Your task to perform on an android device: toggle location history Image 0: 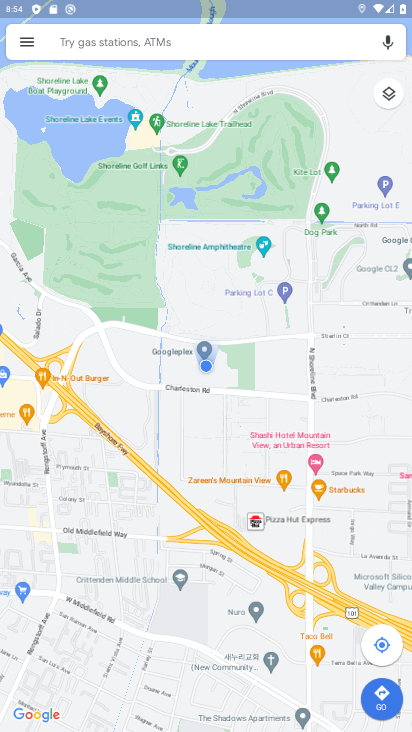
Step 0: press back button
Your task to perform on an android device: toggle location history Image 1: 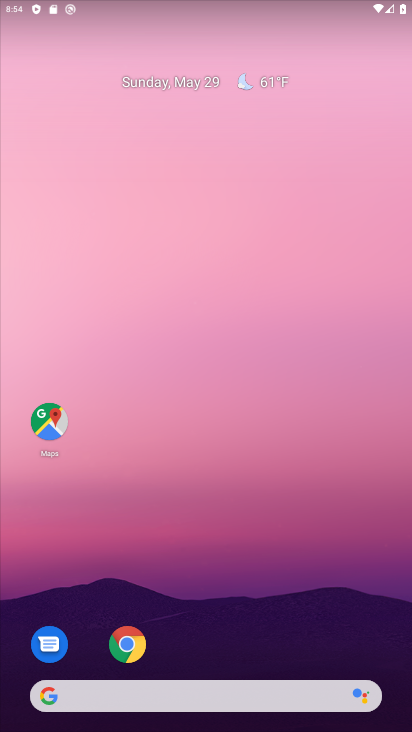
Step 1: drag from (210, 367) to (160, 10)
Your task to perform on an android device: toggle location history Image 2: 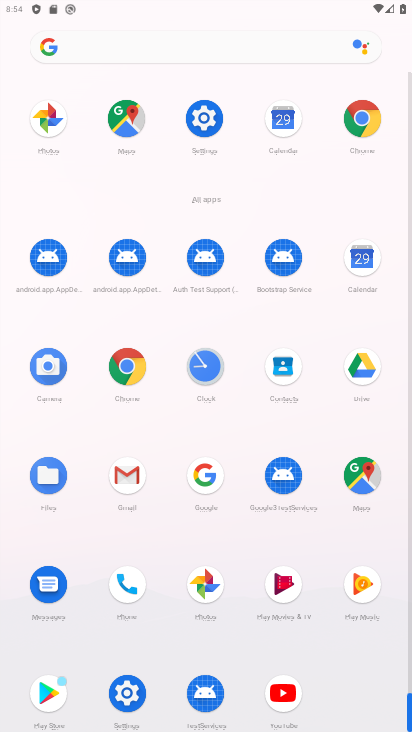
Step 2: drag from (11, 567) to (23, 212)
Your task to perform on an android device: toggle location history Image 3: 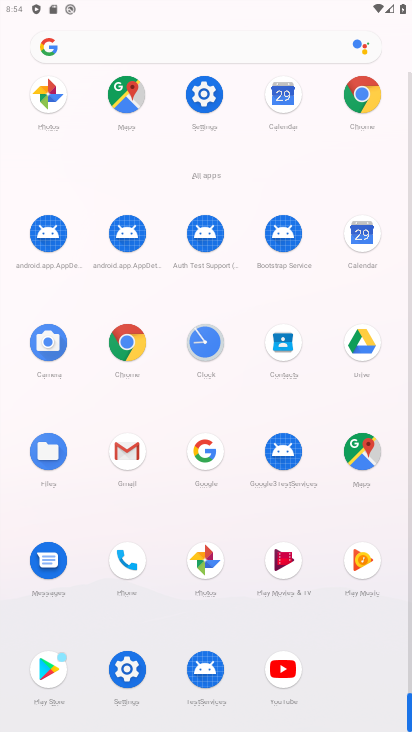
Step 3: click (125, 669)
Your task to perform on an android device: toggle location history Image 4: 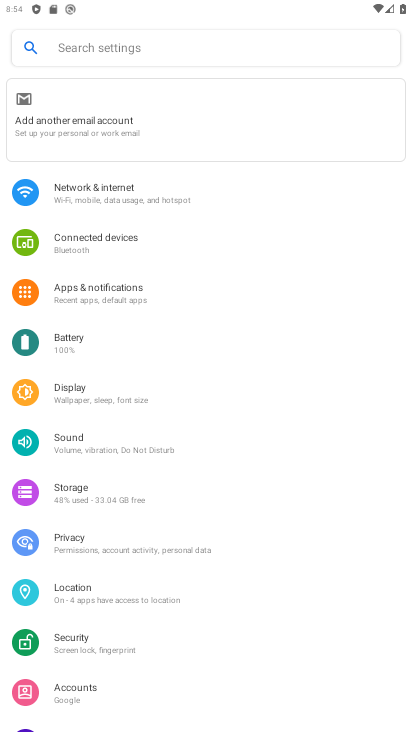
Step 4: drag from (159, 571) to (156, 113)
Your task to perform on an android device: toggle location history Image 5: 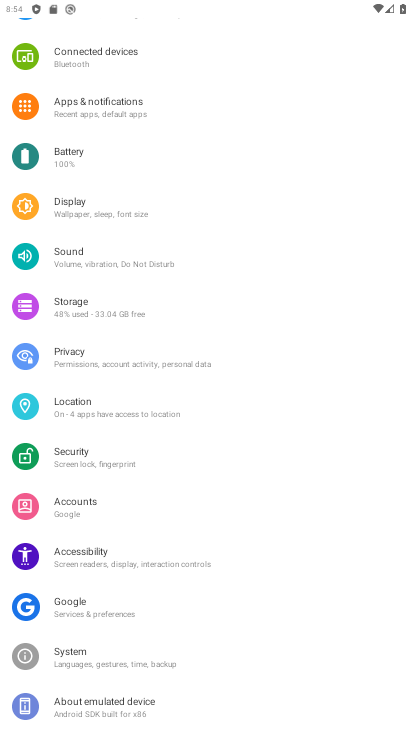
Step 5: drag from (197, 514) to (194, 168)
Your task to perform on an android device: toggle location history Image 6: 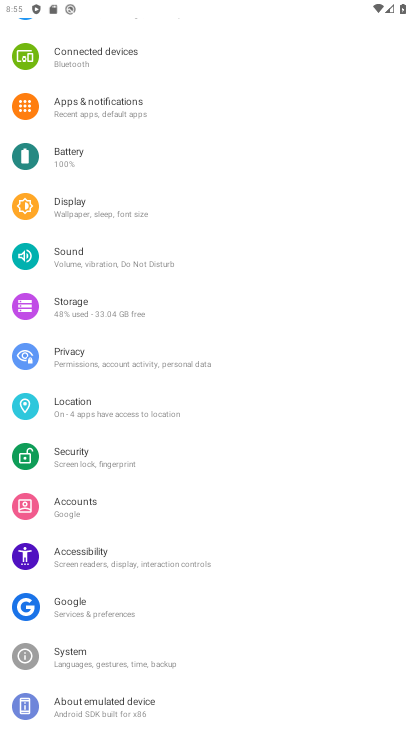
Step 6: click (137, 407)
Your task to perform on an android device: toggle location history Image 7: 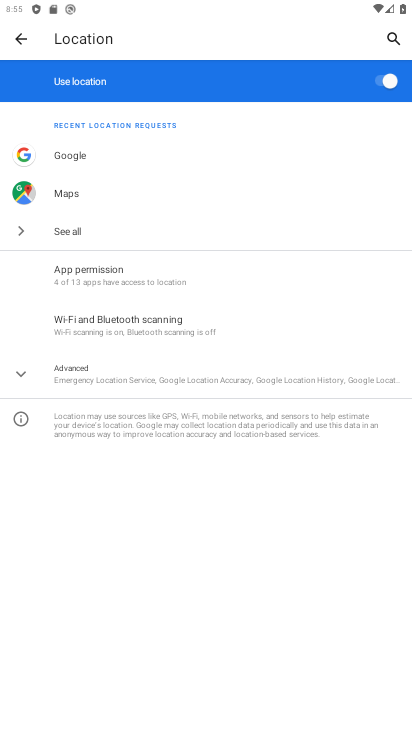
Step 7: click (31, 381)
Your task to perform on an android device: toggle location history Image 8: 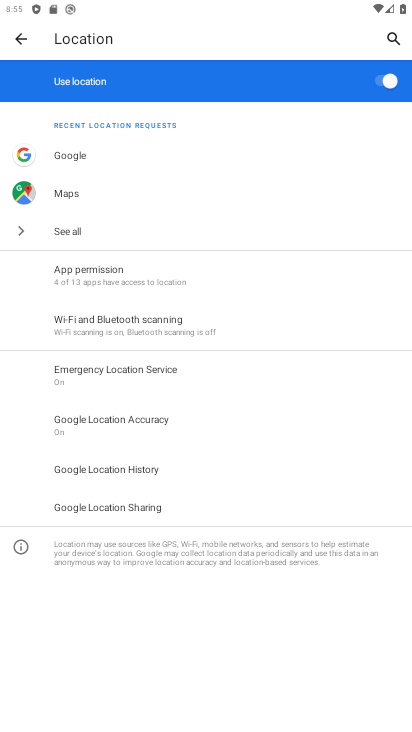
Step 8: click (122, 476)
Your task to perform on an android device: toggle location history Image 9: 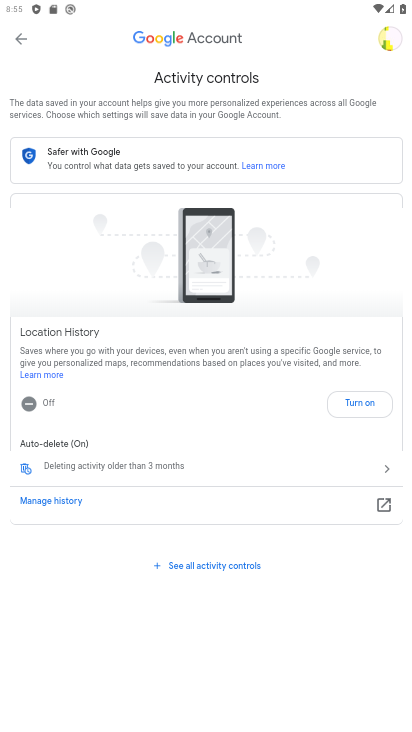
Step 9: click (353, 394)
Your task to perform on an android device: toggle location history Image 10: 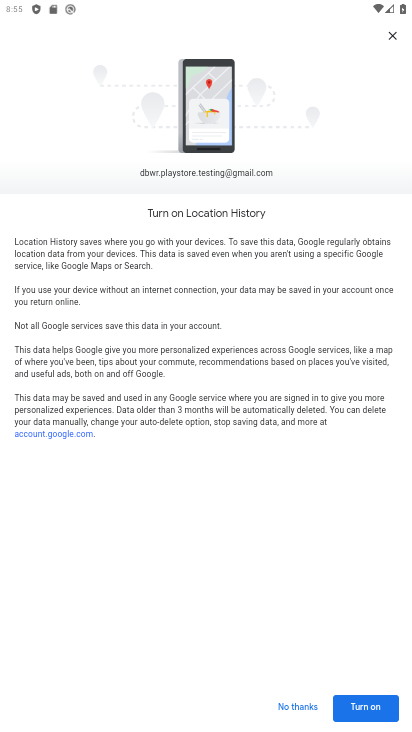
Step 10: drag from (155, 654) to (162, 169)
Your task to perform on an android device: toggle location history Image 11: 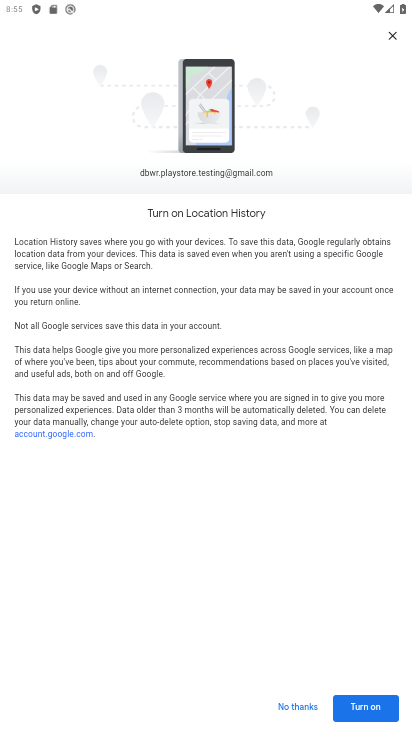
Step 11: click (353, 709)
Your task to perform on an android device: toggle location history Image 12: 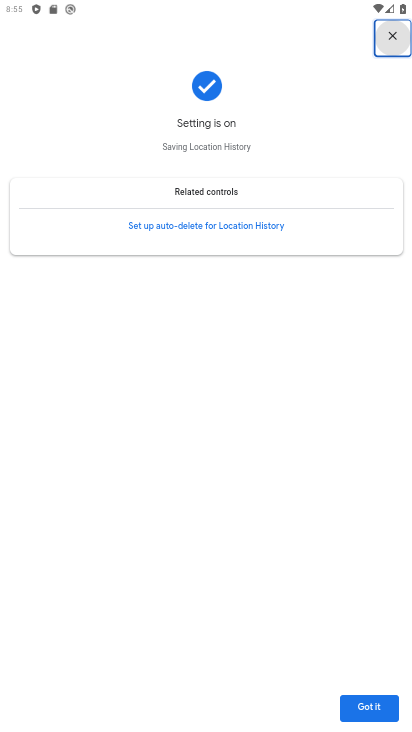
Step 12: task complete